Your task to perform on an android device: make emails show in primary in the gmail app Image 0: 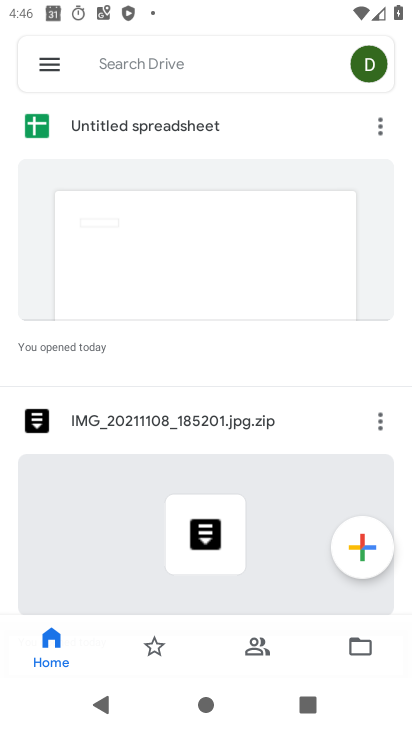
Step 0: press home button
Your task to perform on an android device: make emails show in primary in the gmail app Image 1: 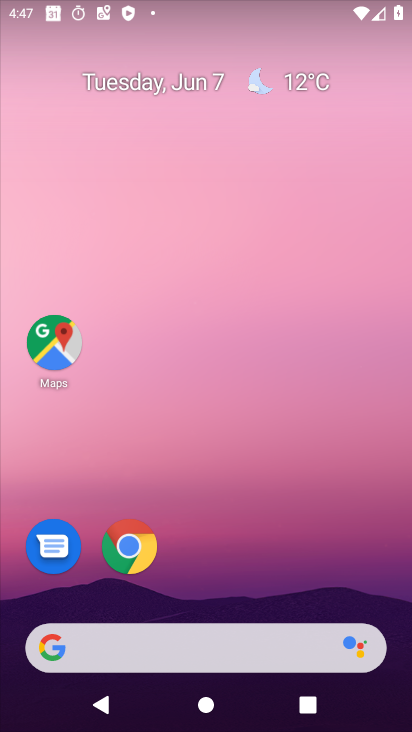
Step 1: drag from (171, 606) to (183, 7)
Your task to perform on an android device: make emails show in primary in the gmail app Image 2: 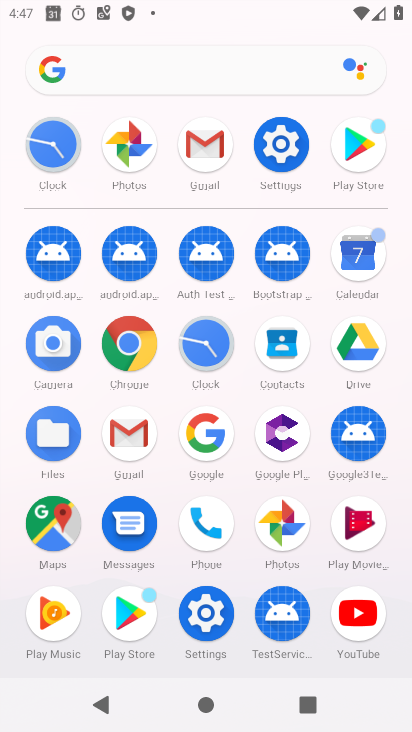
Step 2: click (197, 155)
Your task to perform on an android device: make emails show in primary in the gmail app Image 3: 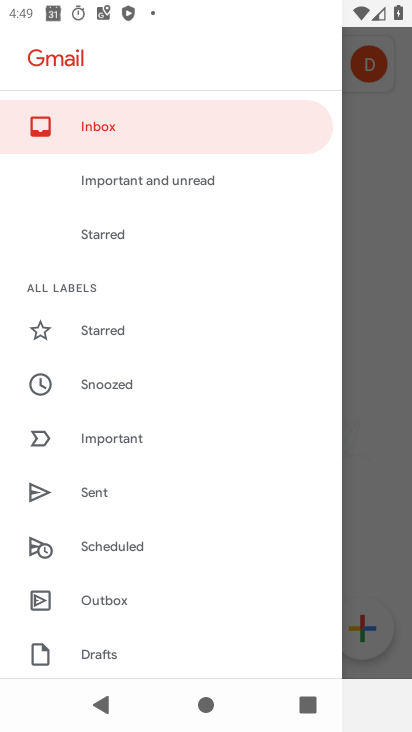
Step 3: task complete